Your task to perform on an android device: open chrome privacy settings Image 0: 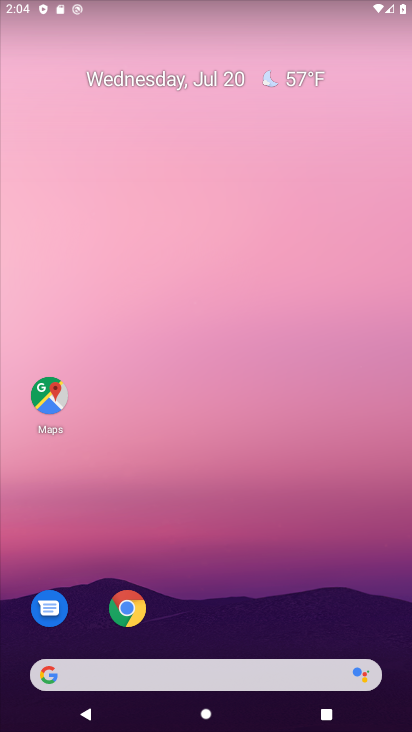
Step 0: click (129, 609)
Your task to perform on an android device: open chrome privacy settings Image 1: 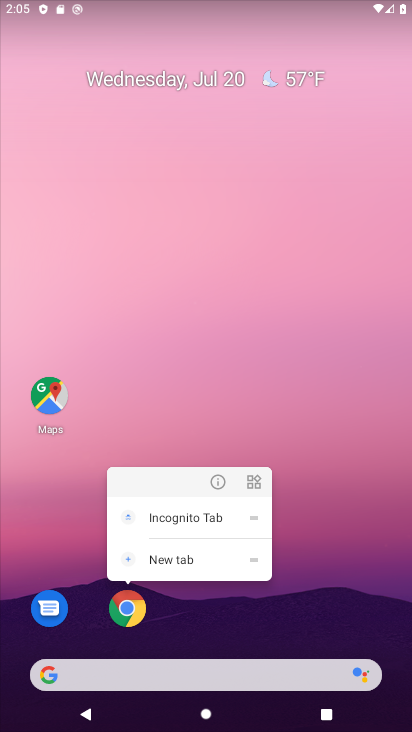
Step 1: click (127, 610)
Your task to perform on an android device: open chrome privacy settings Image 2: 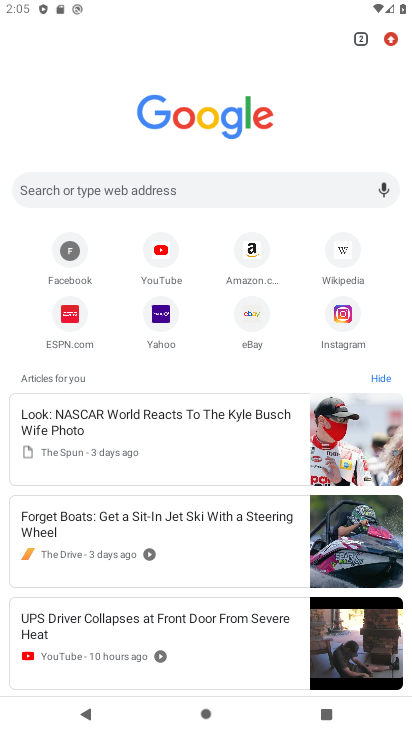
Step 2: click (393, 36)
Your task to perform on an android device: open chrome privacy settings Image 3: 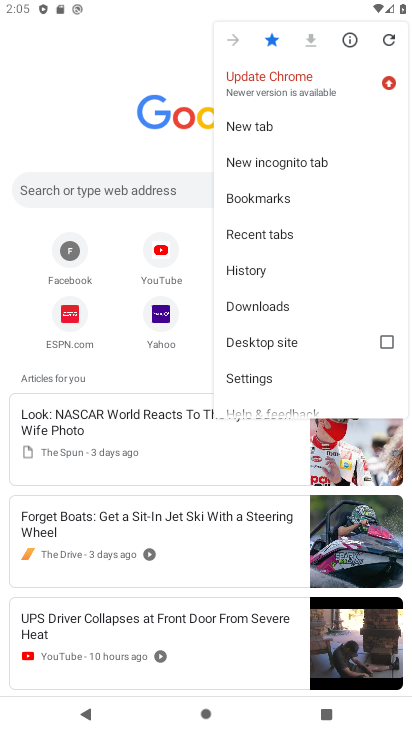
Step 3: click (265, 377)
Your task to perform on an android device: open chrome privacy settings Image 4: 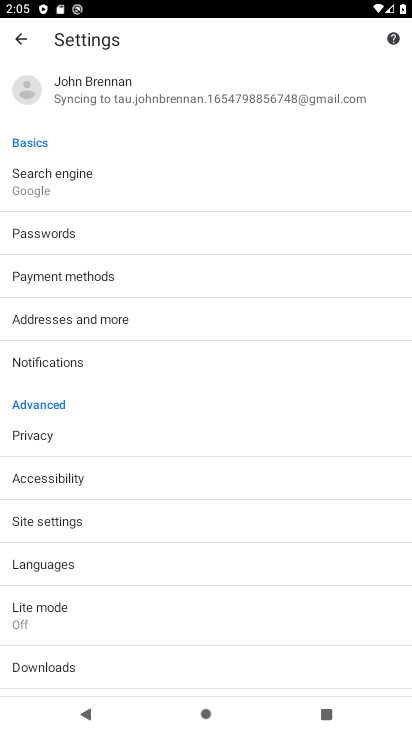
Step 4: click (47, 438)
Your task to perform on an android device: open chrome privacy settings Image 5: 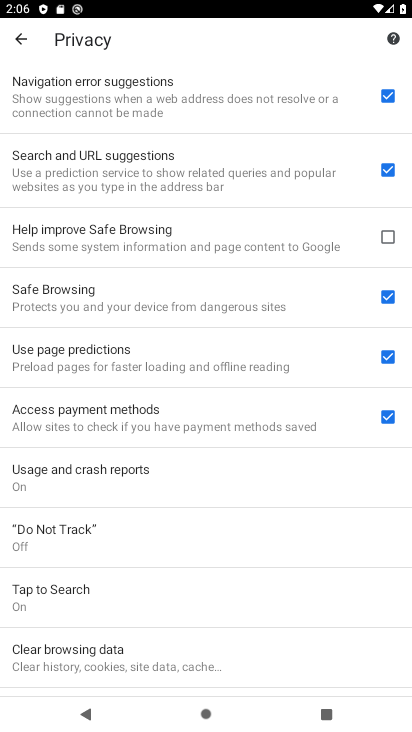
Step 5: task complete